Your task to perform on an android device: Go to network settings Image 0: 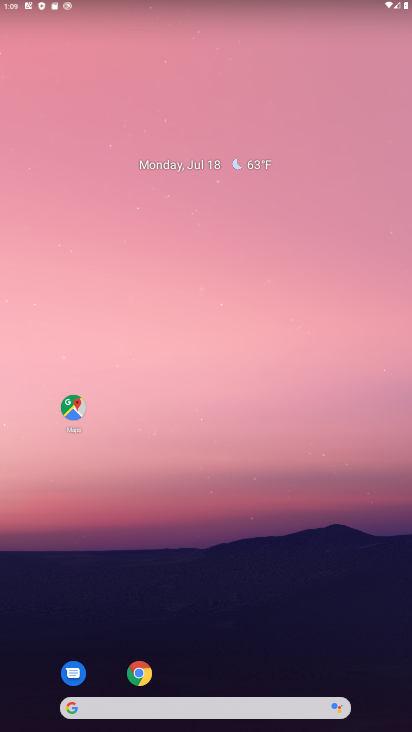
Step 0: drag from (247, 673) to (223, 229)
Your task to perform on an android device: Go to network settings Image 1: 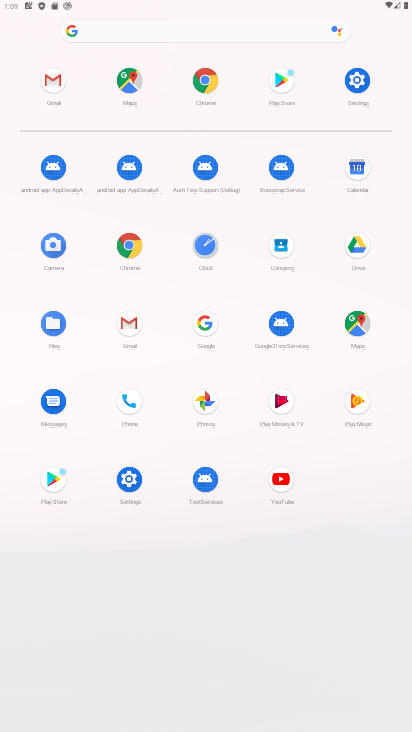
Step 1: click (369, 76)
Your task to perform on an android device: Go to network settings Image 2: 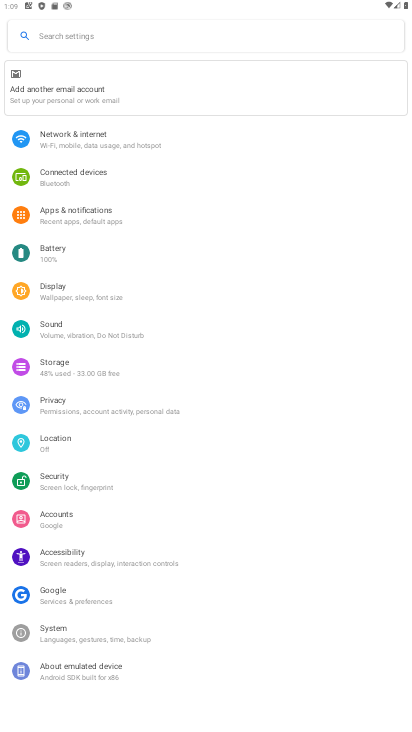
Step 2: click (86, 143)
Your task to perform on an android device: Go to network settings Image 3: 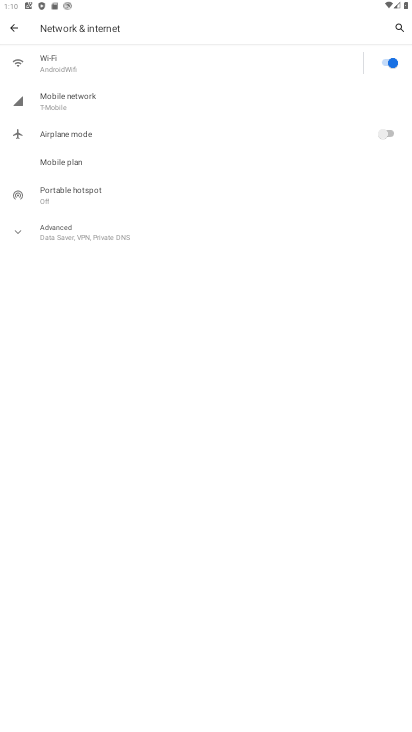
Step 3: task complete